Your task to perform on an android device: see tabs open on other devices in the chrome app Image 0: 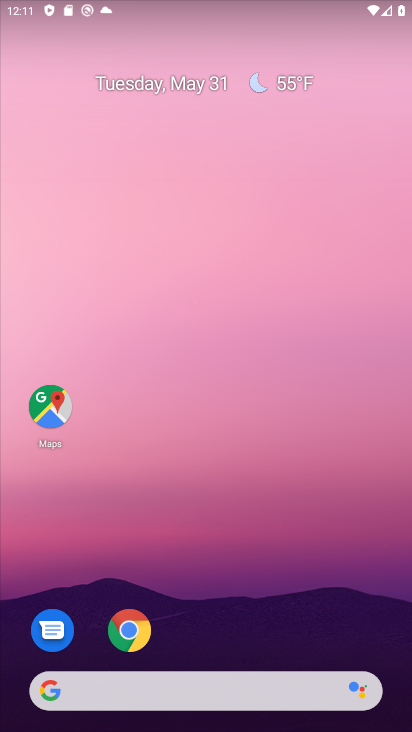
Step 0: press home button
Your task to perform on an android device: see tabs open on other devices in the chrome app Image 1: 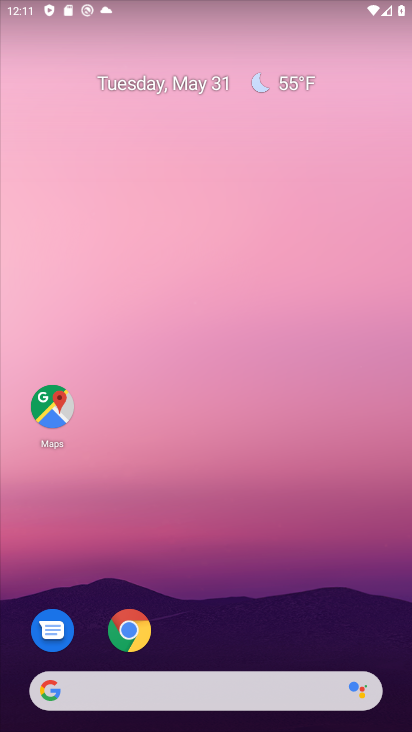
Step 1: drag from (182, 631) to (199, 298)
Your task to perform on an android device: see tabs open on other devices in the chrome app Image 2: 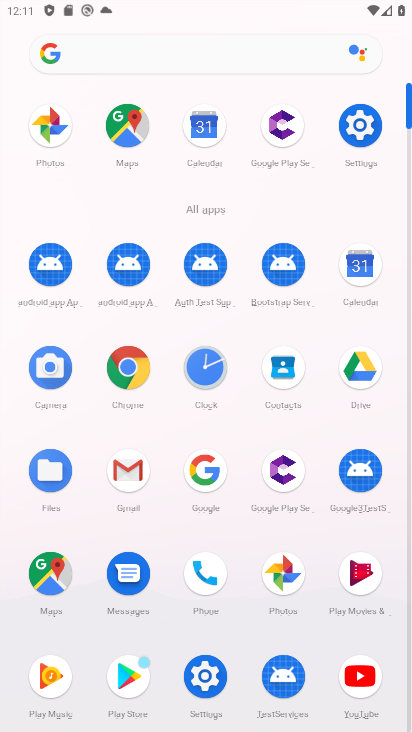
Step 2: click (132, 376)
Your task to perform on an android device: see tabs open on other devices in the chrome app Image 3: 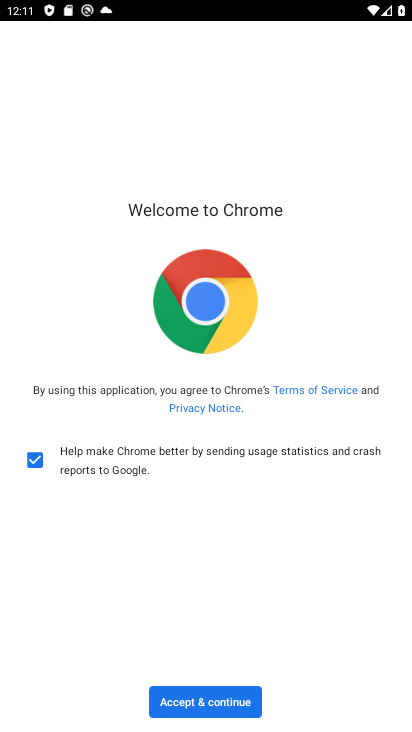
Step 3: click (223, 705)
Your task to perform on an android device: see tabs open on other devices in the chrome app Image 4: 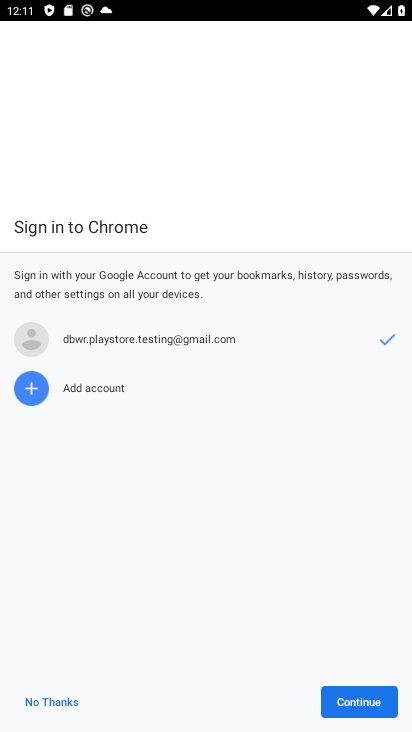
Step 4: click (358, 709)
Your task to perform on an android device: see tabs open on other devices in the chrome app Image 5: 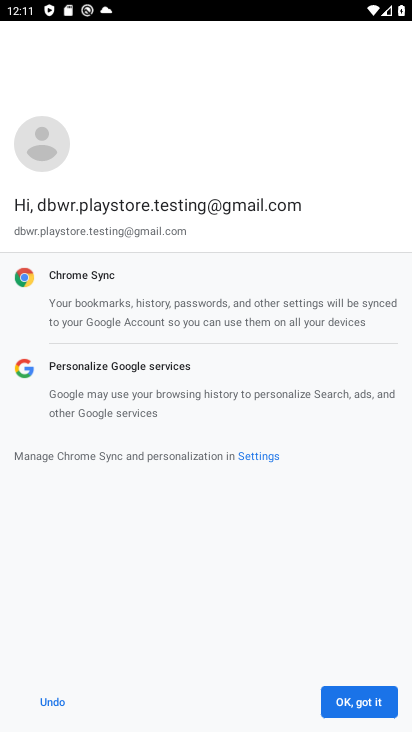
Step 5: click (351, 708)
Your task to perform on an android device: see tabs open on other devices in the chrome app Image 6: 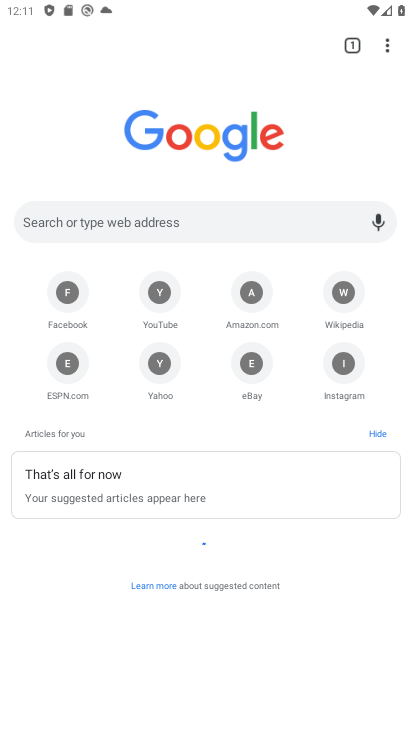
Step 6: click (353, 40)
Your task to perform on an android device: see tabs open on other devices in the chrome app Image 7: 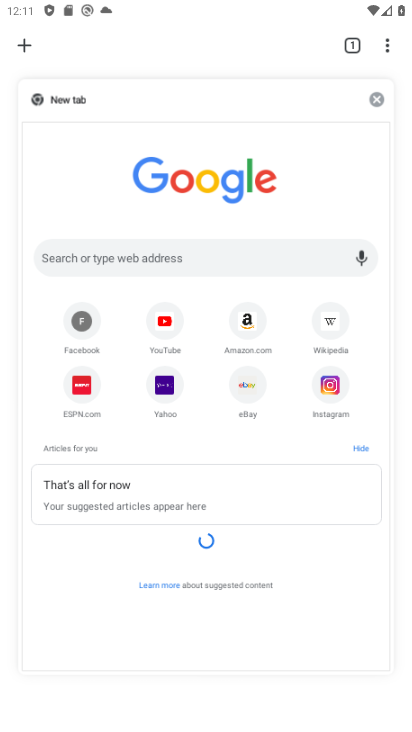
Step 7: task complete